Your task to perform on an android device: manage bookmarks in the chrome app Image 0: 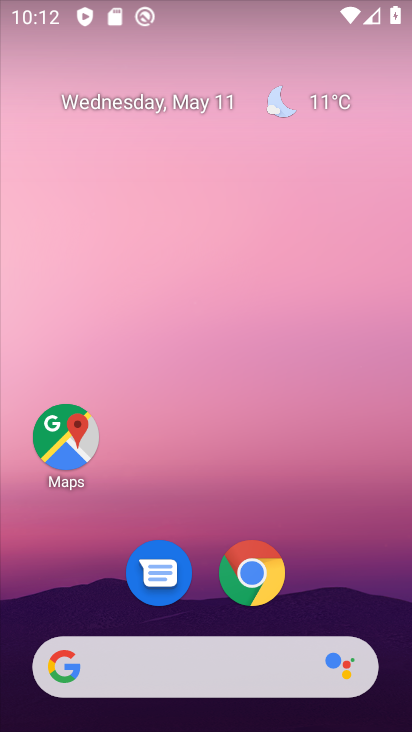
Step 0: click (258, 572)
Your task to perform on an android device: manage bookmarks in the chrome app Image 1: 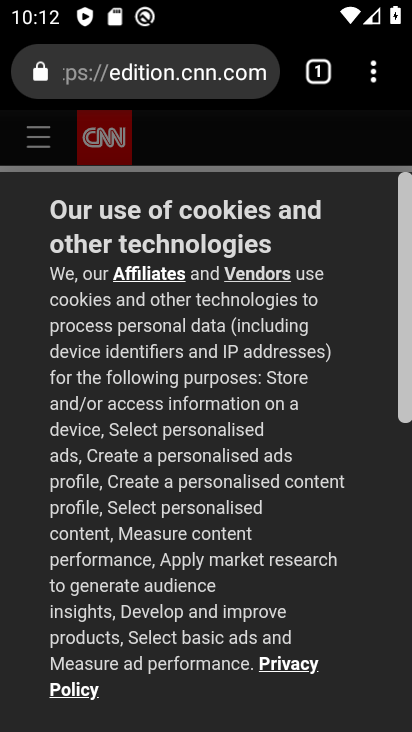
Step 1: click (376, 73)
Your task to perform on an android device: manage bookmarks in the chrome app Image 2: 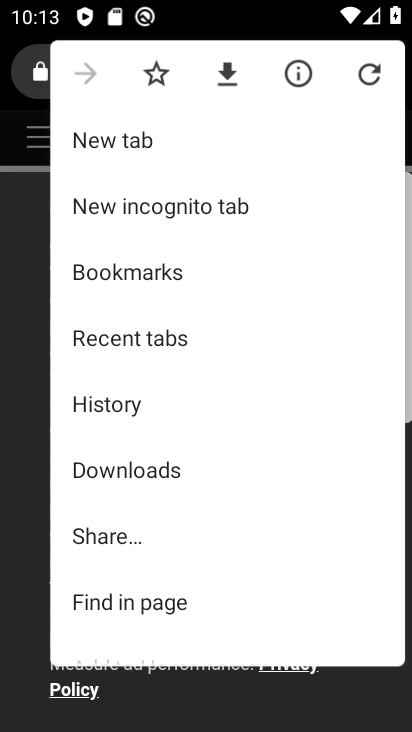
Step 2: click (181, 272)
Your task to perform on an android device: manage bookmarks in the chrome app Image 3: 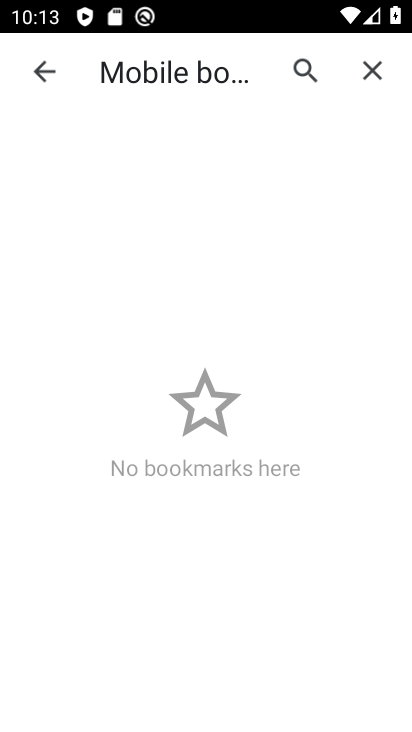
Step 3: task complete